Your task to perform on an android device: Toggle the flashlight Image 0: 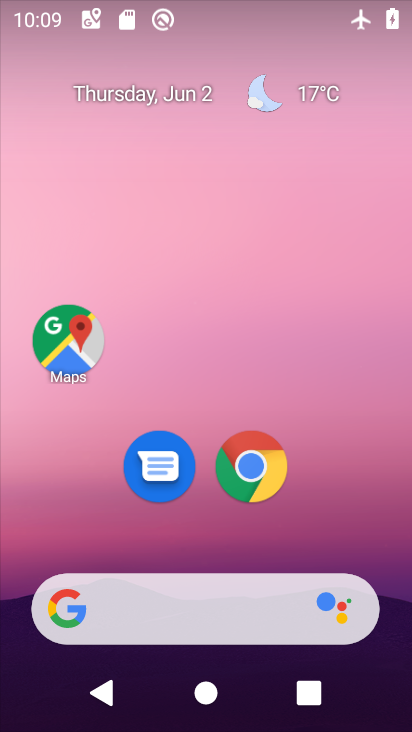
Step 0: drag from (281, 527) to (310, 186)
Your task to perform on an android device: Toggle the flashlight Image 1: 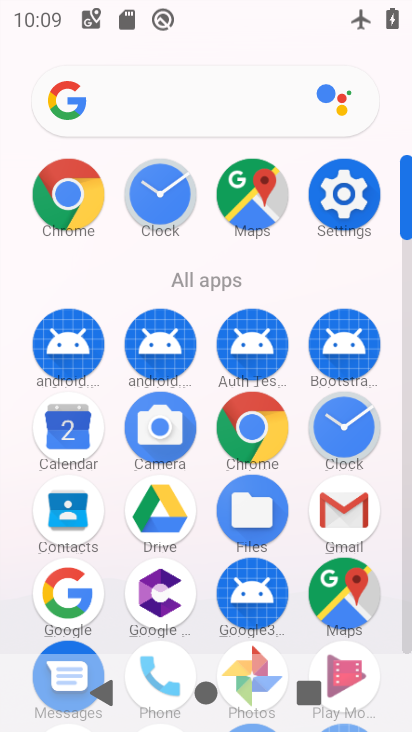
Step 1: click (341, 178)
Your task to perform on an android device: Toggle the flashlight Image 2: 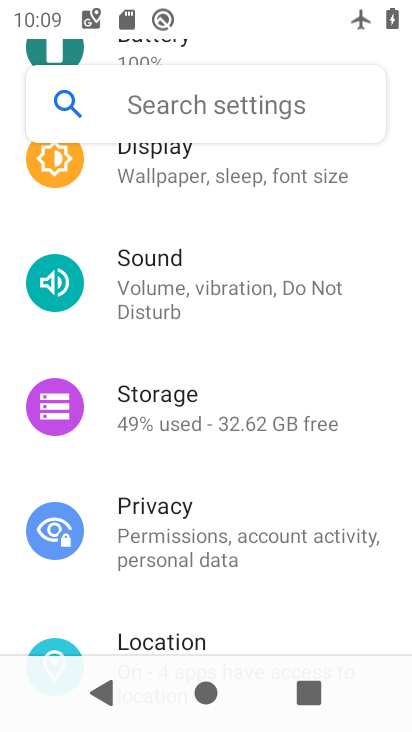
Step 2: task complete